Your task to perform on an android device: find photos in the google photos app Image 0: 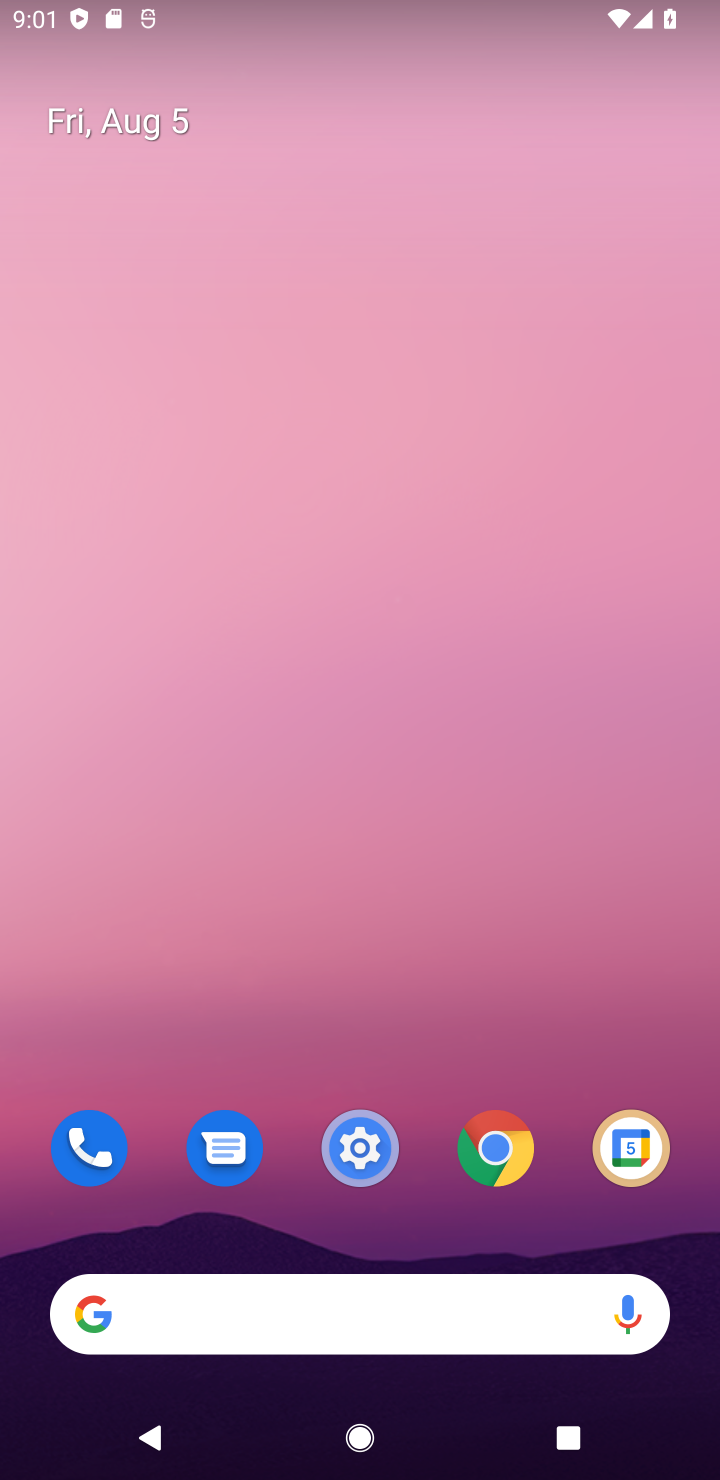
Step 0: drag from (416, 1253) to (501, 208)
Your task to perform on an android device: find photos in the google photos app Image 1: 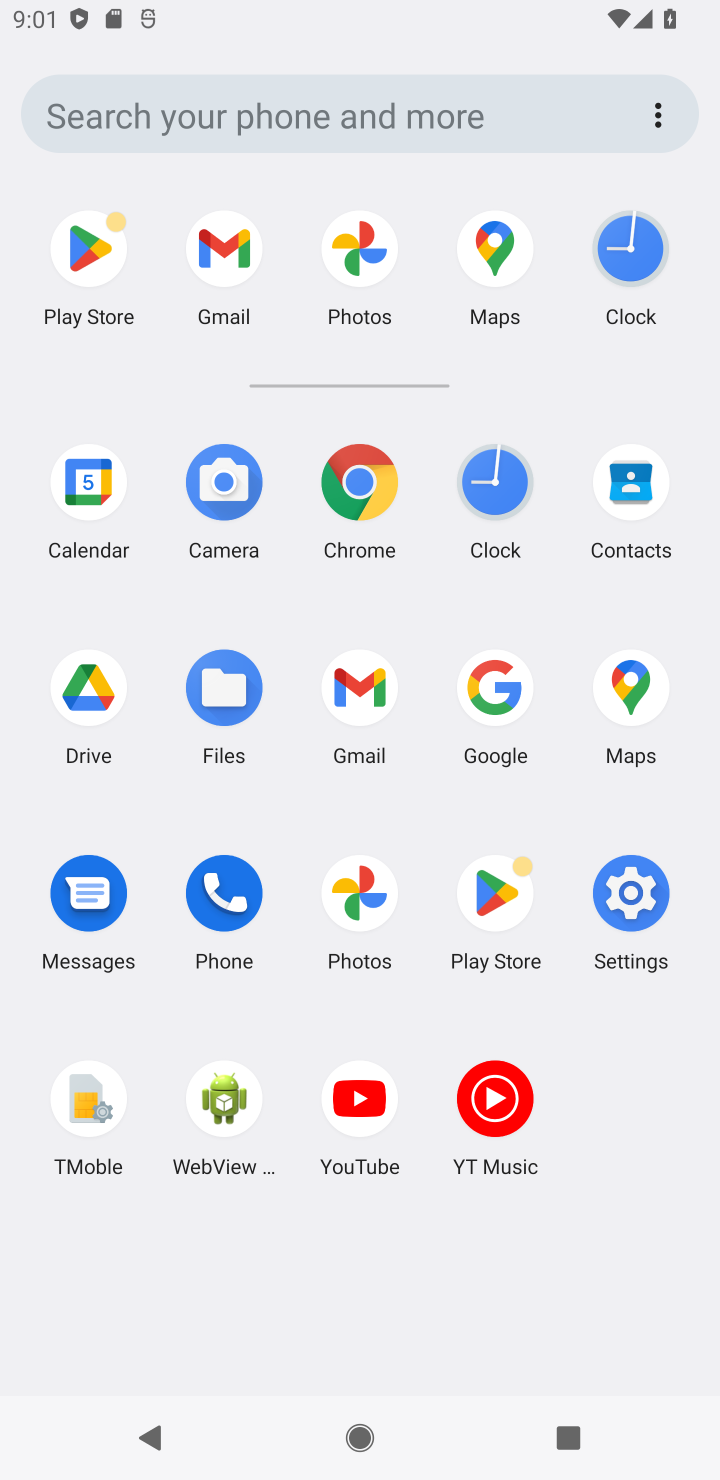
Step 1: click (392, 297)
Your task to perform on an android device: find photos in the google photos app Image 2: 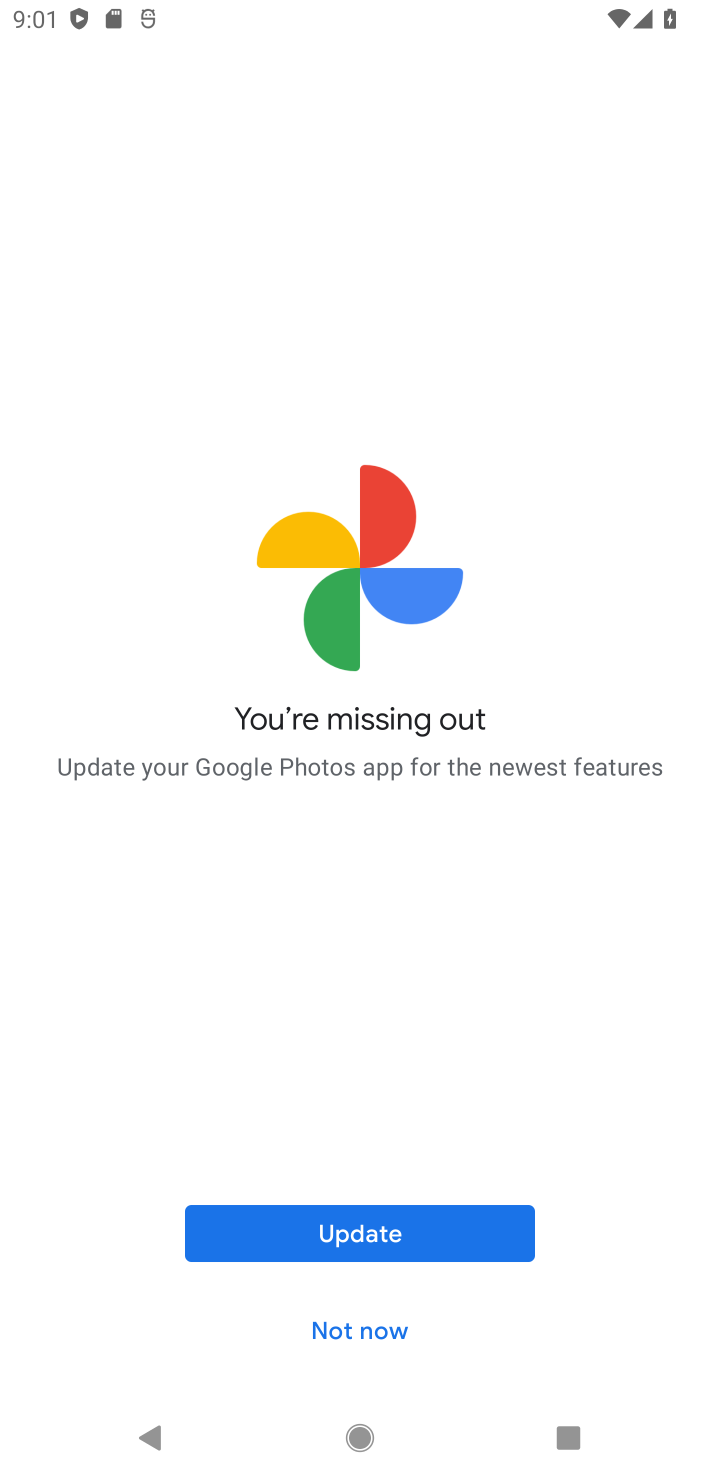
Step 2: click (406, 1331)
Your task to perform on an android device: find photos in the google photos app Image 3: 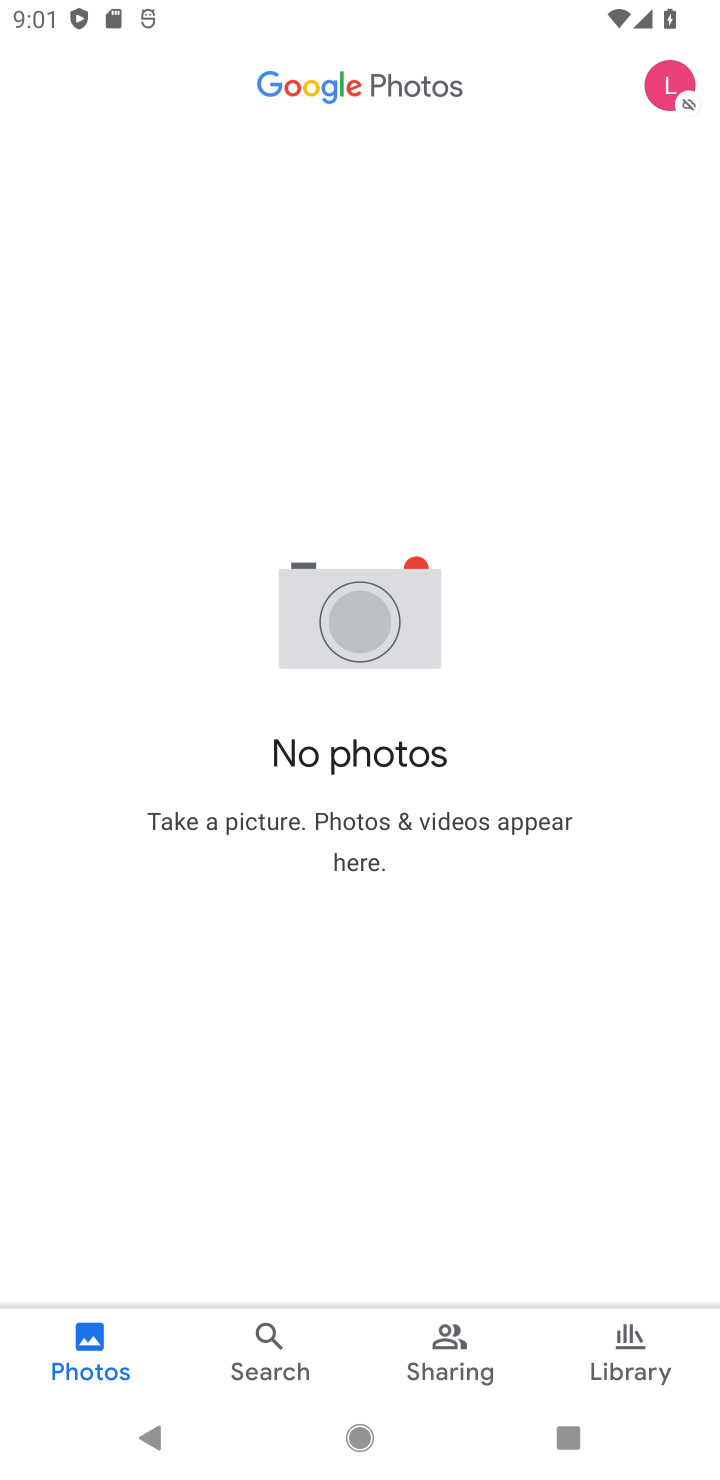
Step 3: task complete